Your task to perform on an android device: delete a single message in the gmail app Image 0: 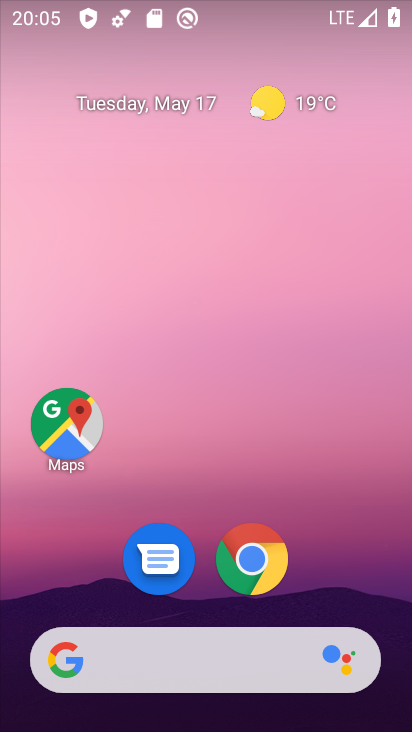
Step 0: drag from (192, 598) to (221, 109)
Your task to perform on an android device: delete a single message in the gmail app Image 1: 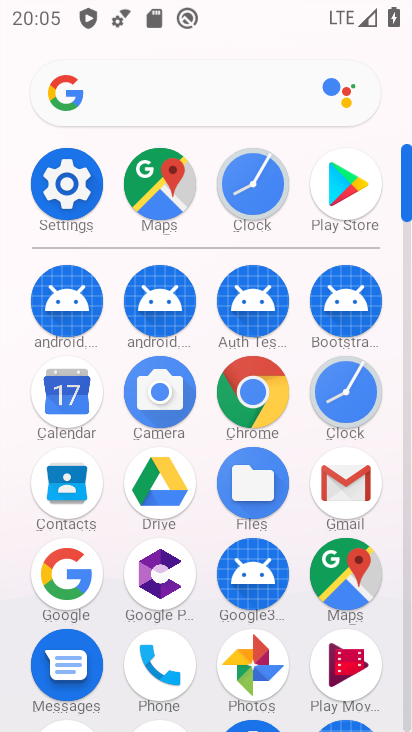
Step 1: click (324, 500)
Your task to perform on an android device: delete a single message in the gmail app Image 2: 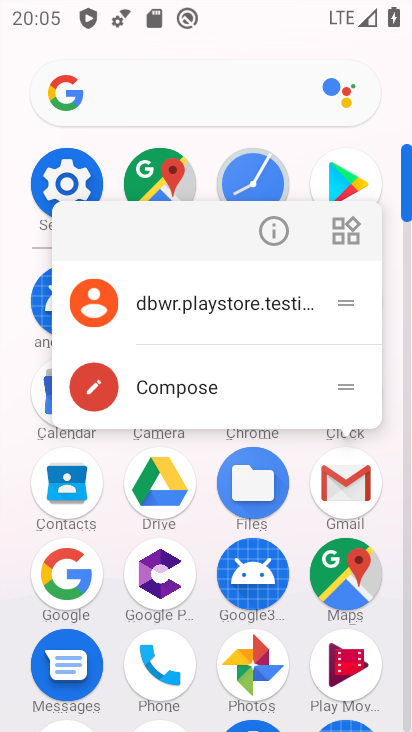
Step 2: click (231, 308)
Your task to perform on an android device: delete a single message in the gmail app Image 3: 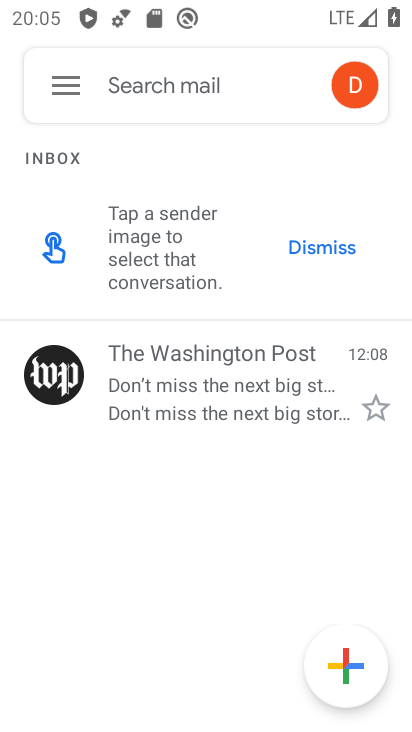
Step 3: click (63, 76)
Your task to perform on an android device: delete a single message in the gmail app Image 4: 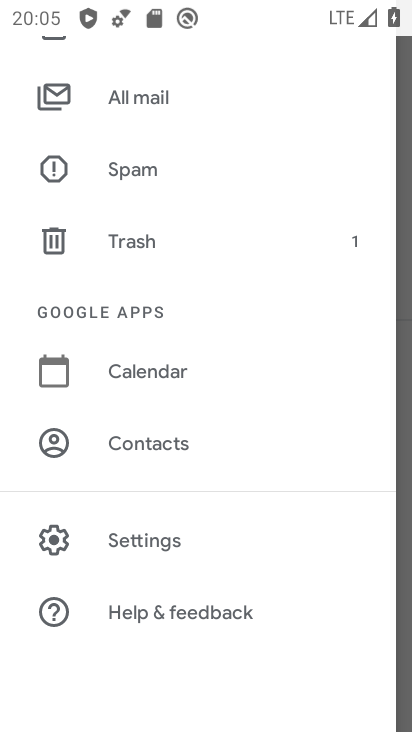
Step 4: click (201, 98)
Your task to perform on an android device: delete a single message in the gmail app Image 5: 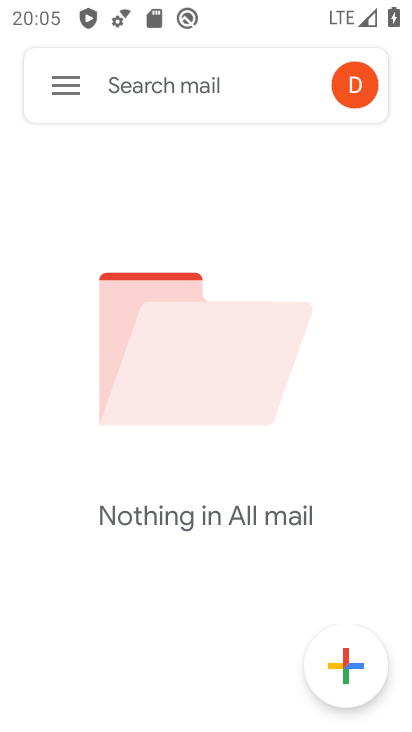
Step 5: task complete